Your task to perform on an android device: Search for seafood restaurants on Google Maps Image 0: 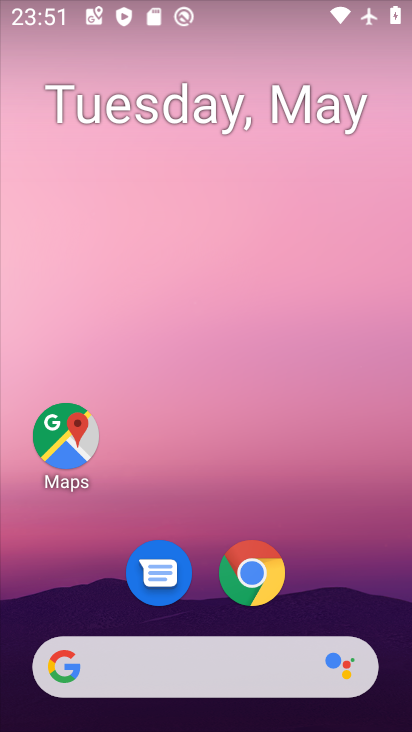
Step 0: drag from (303, 375) to (273, 231)
Your task to perform on an android device: Search for seafood restaurants on Google Maps Image 1: 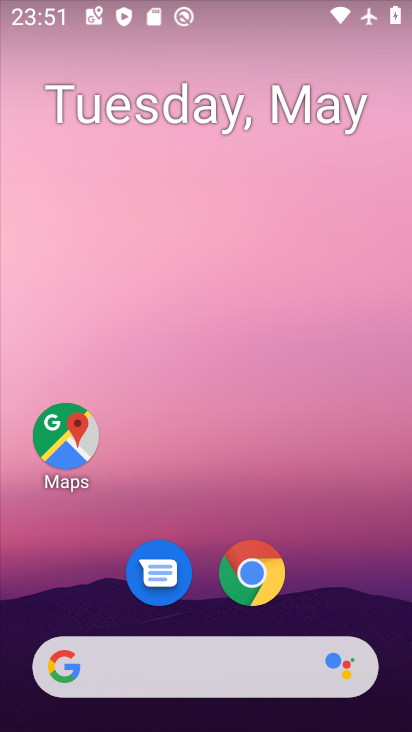
Step 1: click (66, 420)
Your task to perform on an android device: Search for seafood restaurants on Google Maps Image 2: 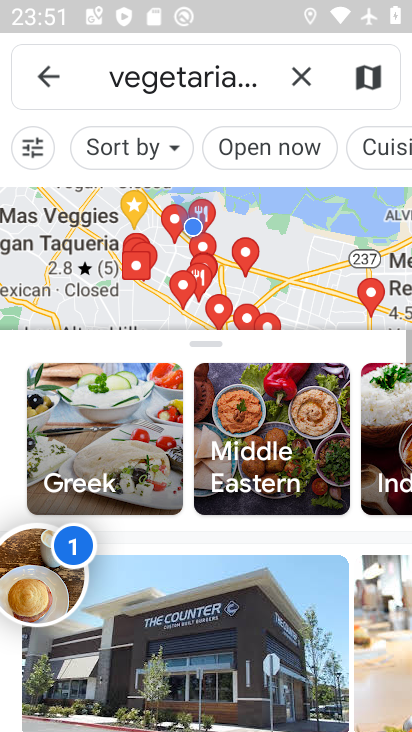
Step 2: click (291, 84)
Your task to perform on an android device: Search for seafood restaurants on Google Maps Image 3: 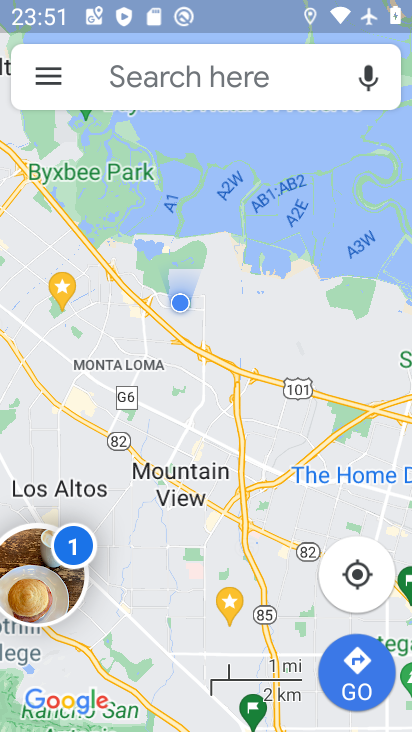
Step 3: click (250, 81)
Your task to perform on an android device: Search for seafood restaurants on Google Maps Image 4: 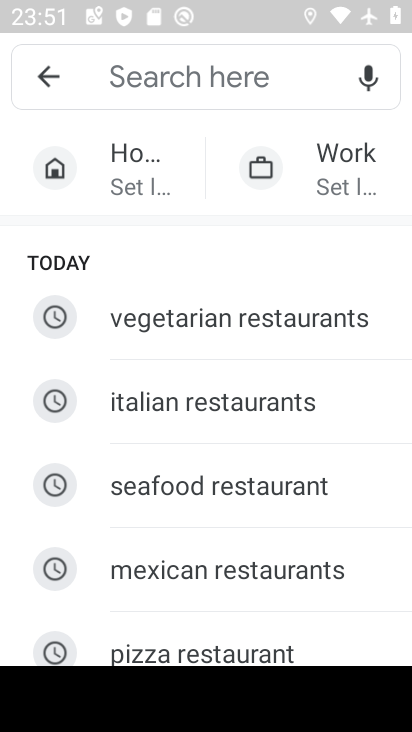
Step 4: click (94, 466)
Your task to perform on an android device: Search for seafood restaurants on Google Maps Image 5: 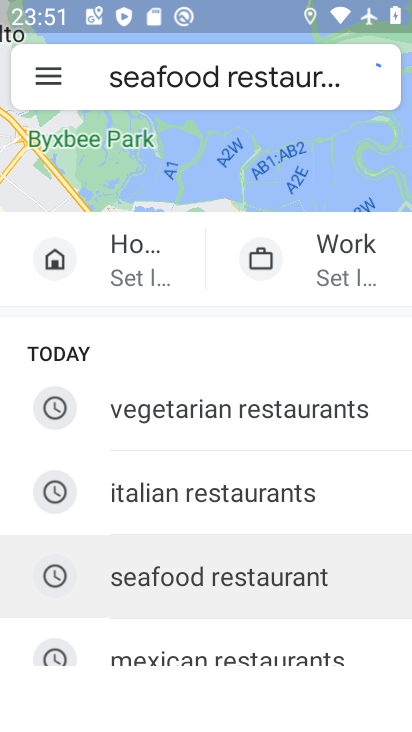
Step 5: click (133, 483)
Your task to perform on an android device: Search for seafood restaurants on Google Maps Image 6: 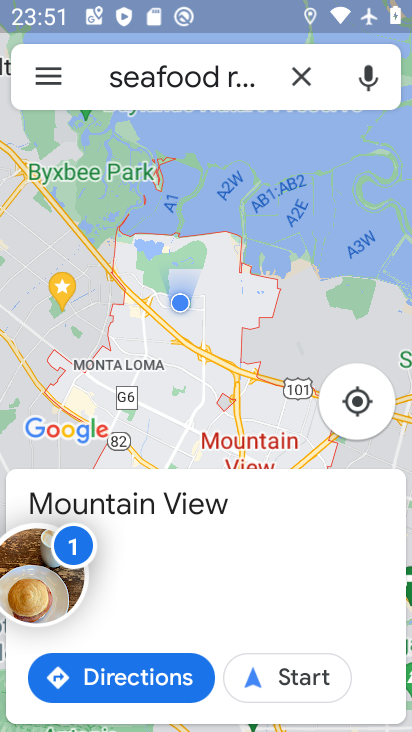
Step 6: task complete